Your task to perform on an android device: Open location settings Image 0: 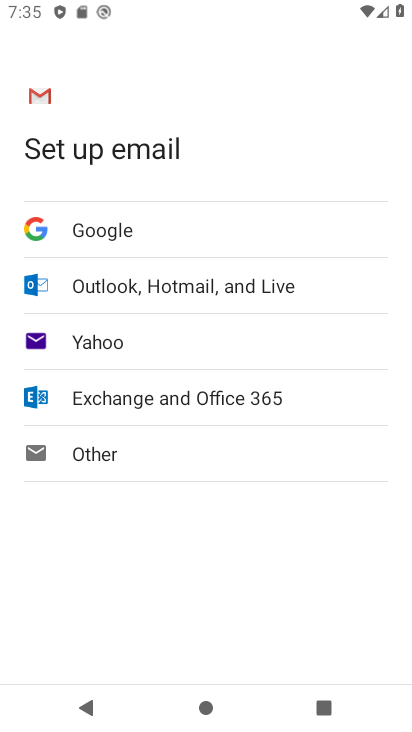
Step 0: press home button
Your task to perform on an android device: Open location settings Image 1: 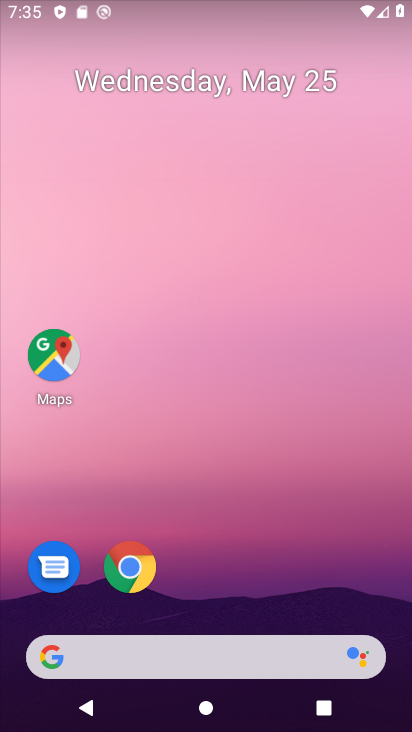
Step 1: drag from (305, 601) to (303, 35)
Your task to perform on an android device: Open location settings Image 2: 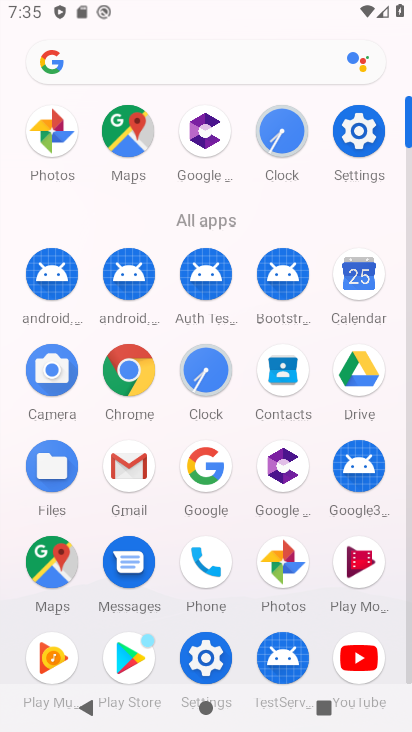
Step 2: click (384, 140)
Your task to perform on an android device: Open location settings Image 3: 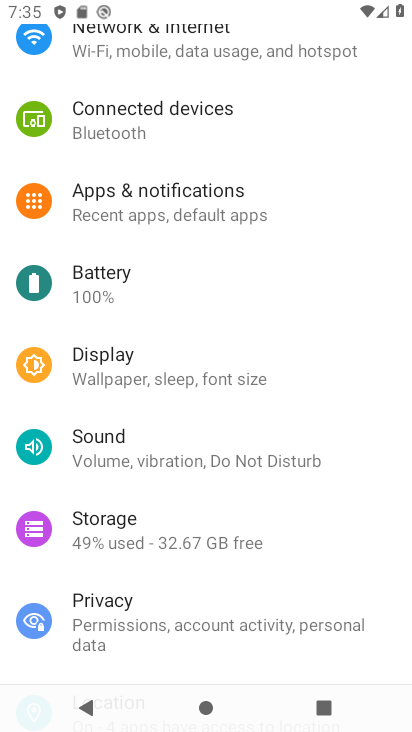
Step 3: drag from (201, 611) to (231, 293)
Your task to perform on an android device: Open location settings Image 4: 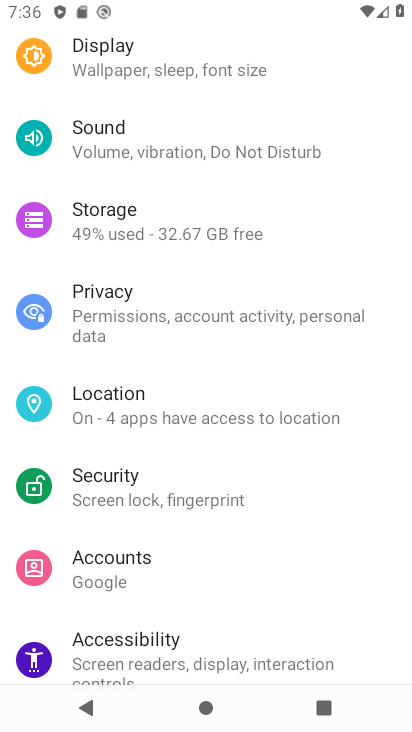
Step 4: click (218, 429)
Your task to perform on an android device: Open location settings Image 5: 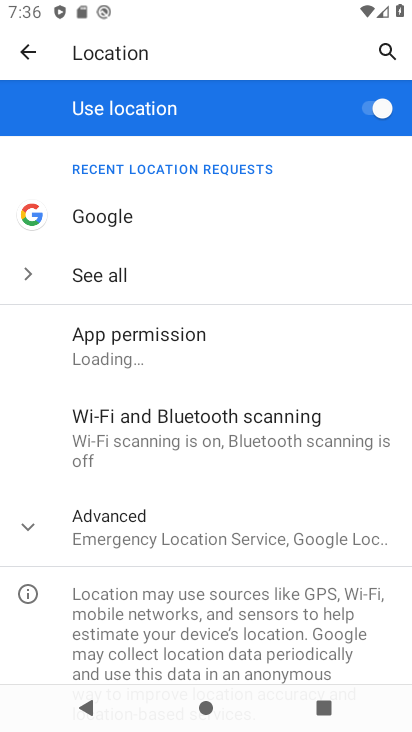
Step 5: task complete